Your task to perform on an android device: toggle data saver in the chrome app Image 0: 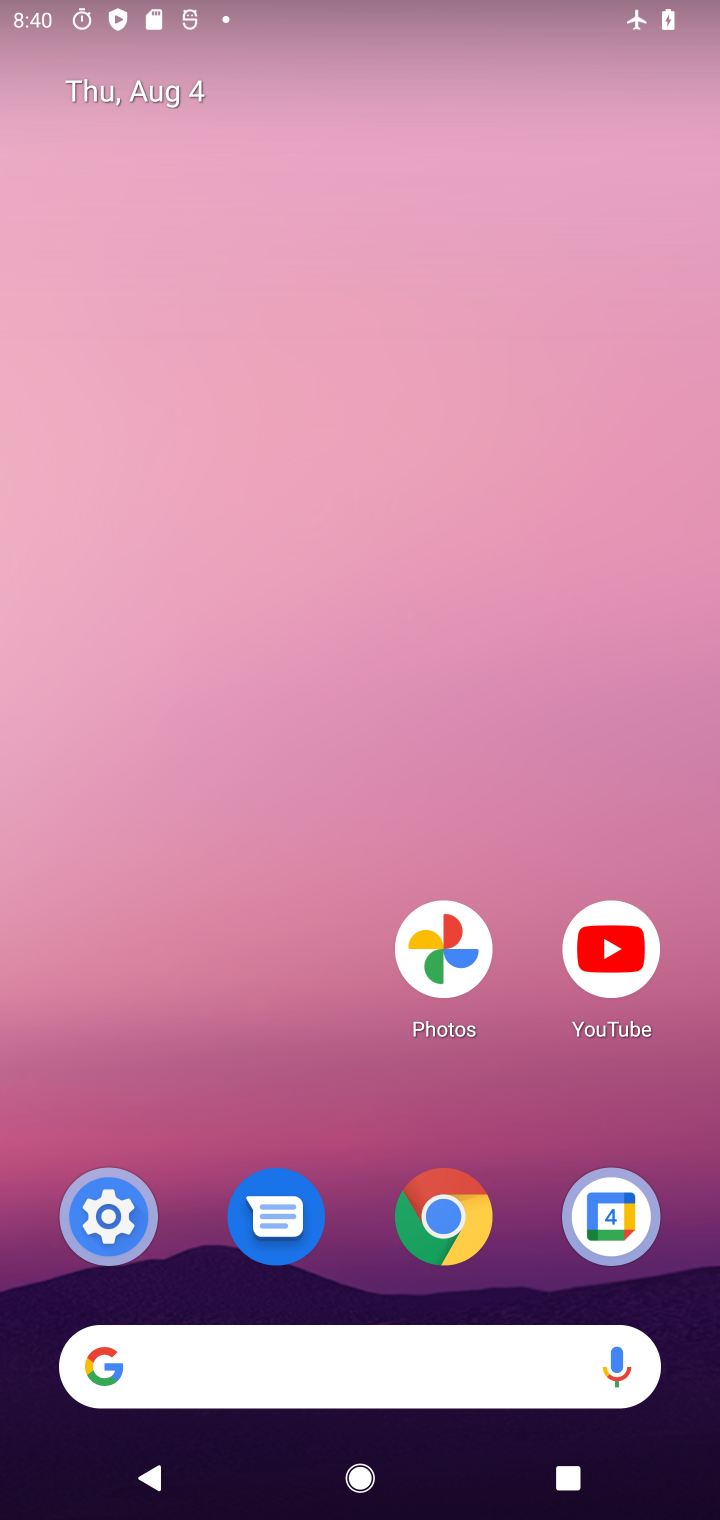
Step 0: click (451, 1208)
Your task to perform on an android device: toggle data saver in the chrome app Image 1: 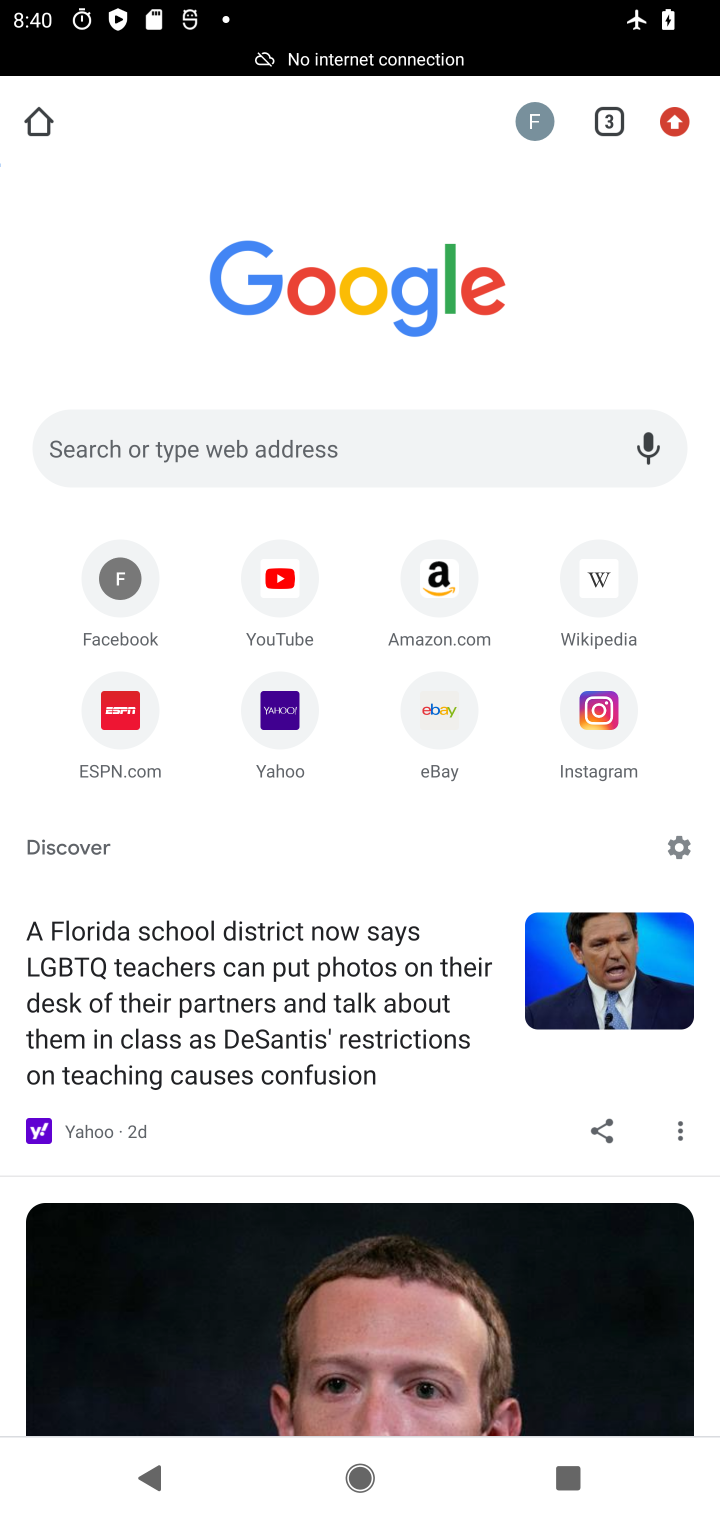
Step 1: click (674, 122)
Your task to perform on an android device: toggle data saver in the chrome app Image 2: 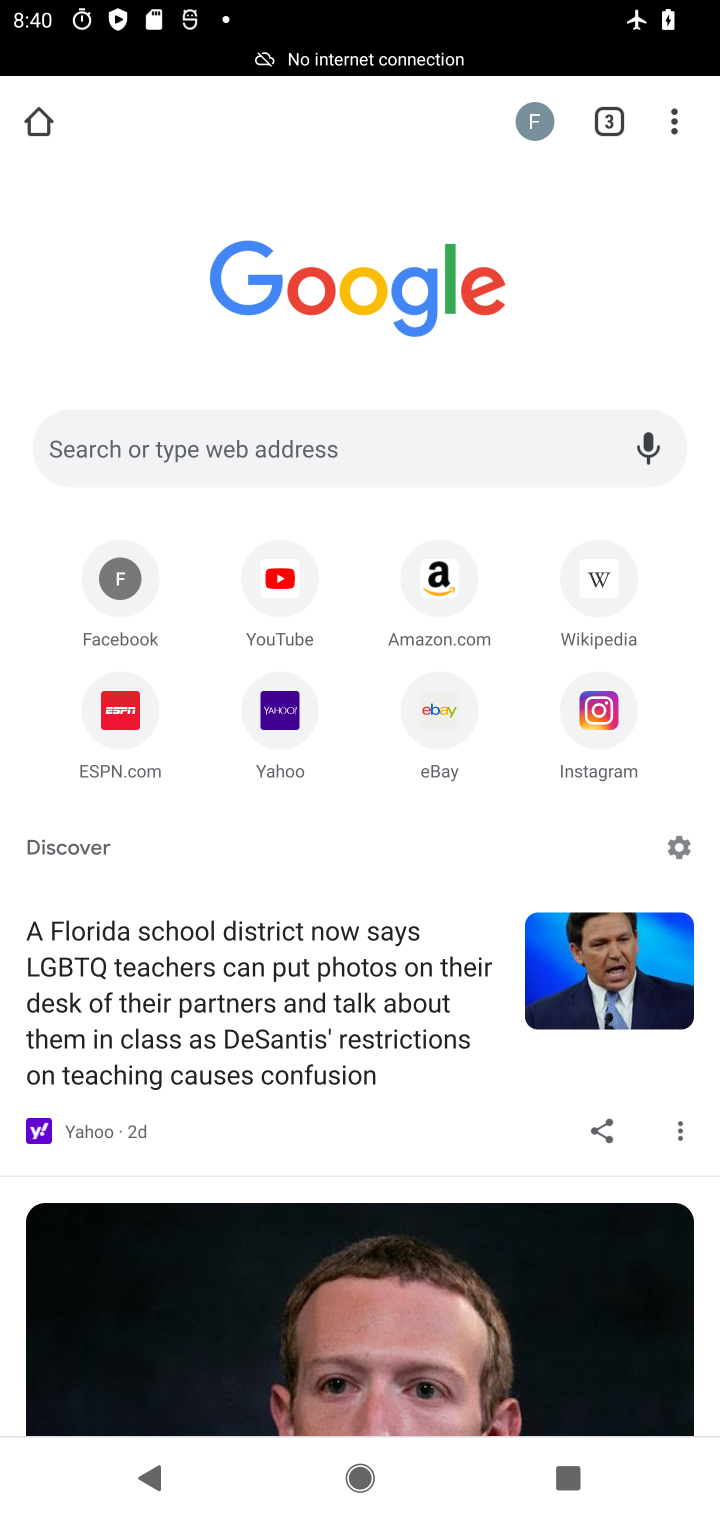
Step 2: drag from (678, 127) to (465, 899)
Your task to perform on an android device: toggle data saver in the chrome app Image 3: 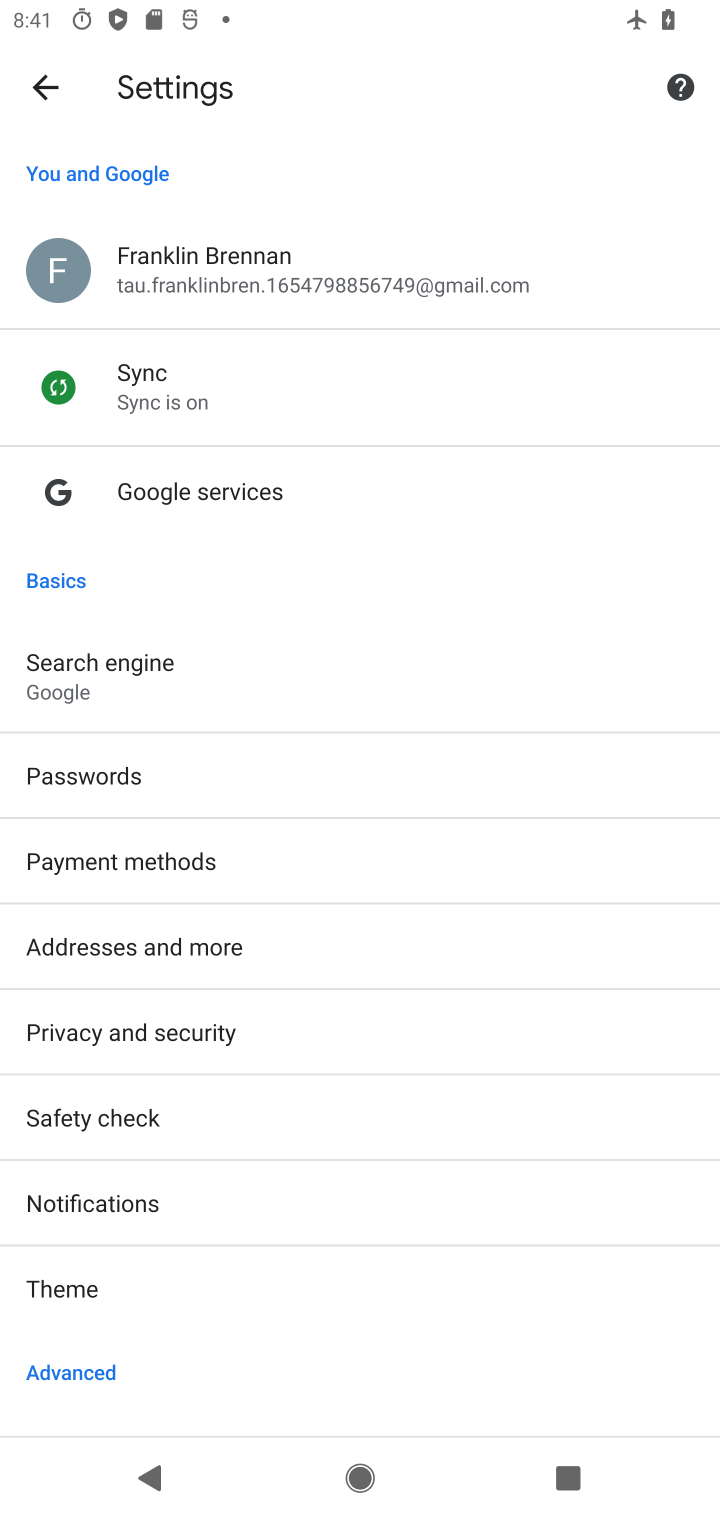
Step 3: drag from (192, 1253) to (199, 762)
Your task to perform on an android device: toggle data saver in the chrome app Image 4: 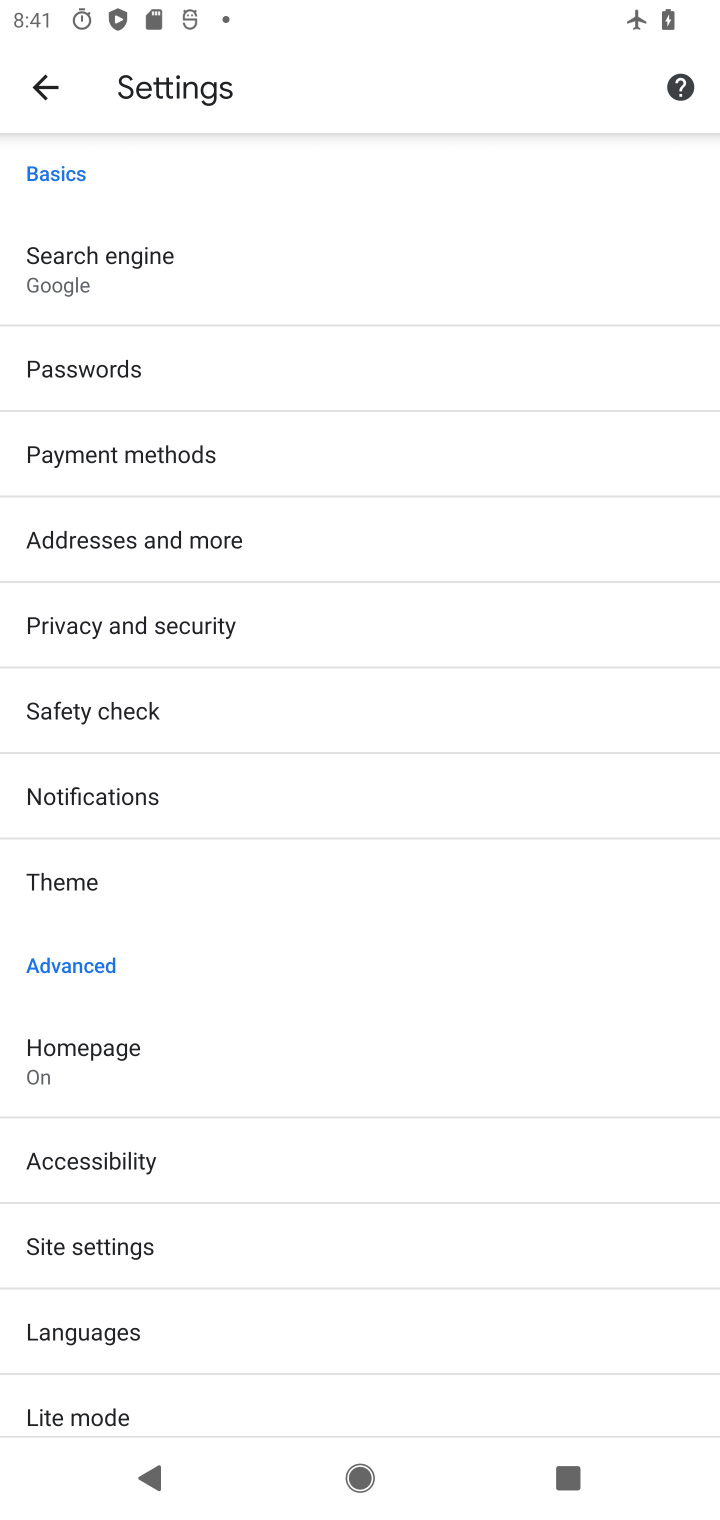
Step 4: click (136, 1397)
Your task to perform on an android device: toggle data saver in the chrome app Image 5: 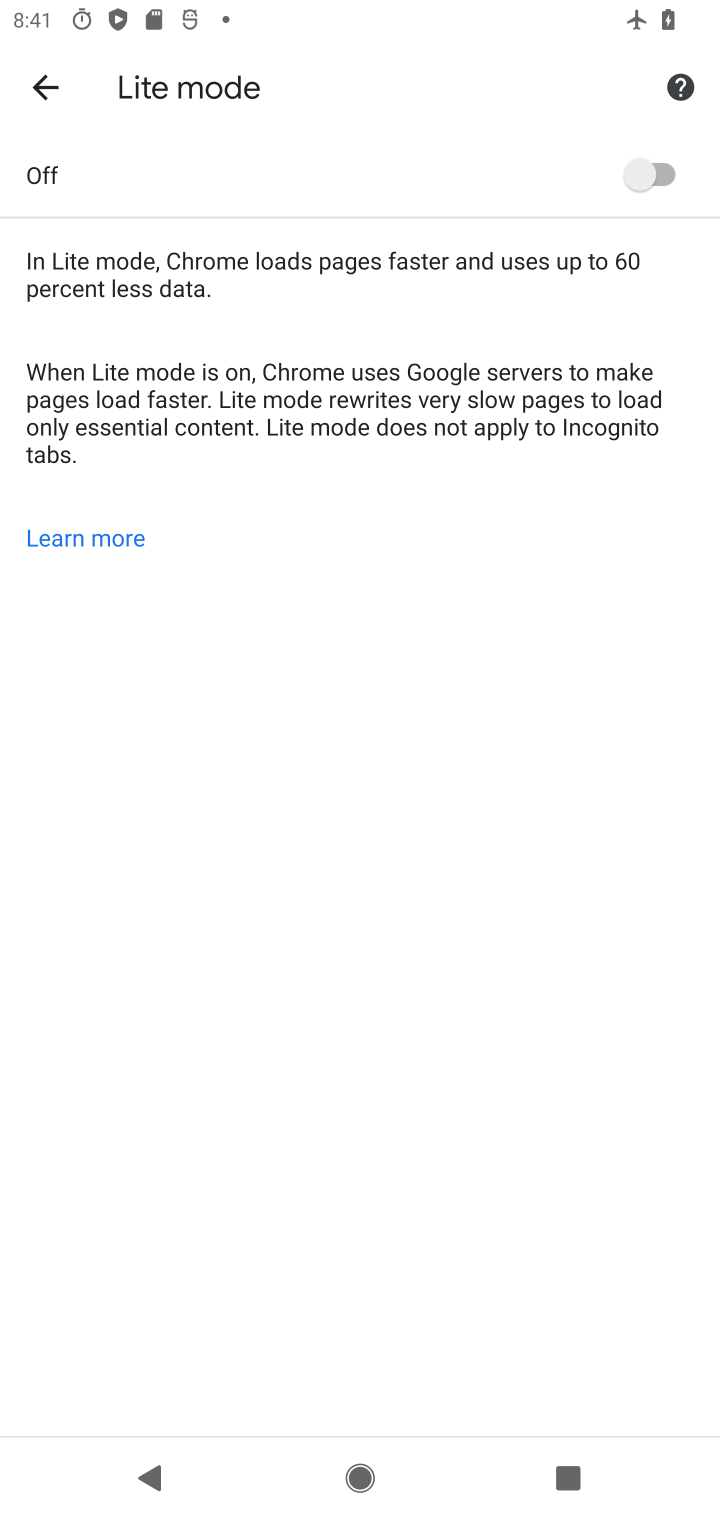
Step 5: click (218, 1332)
Your task to perform on an android device: toggle data saver in the chrome app Image 6: 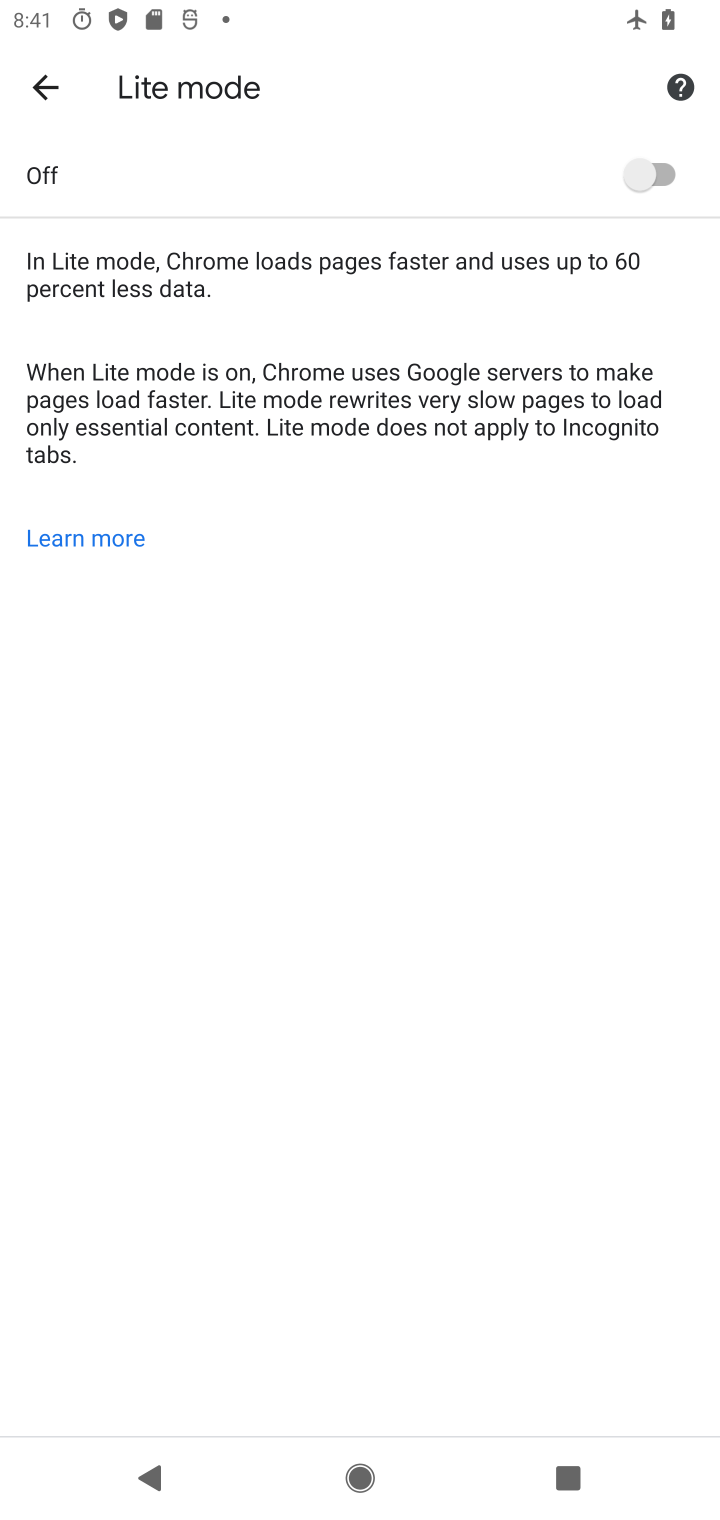
Step 6: click (656, 164)
Your task to perform on an android device: toggle data saver in the chrome app Image 7: 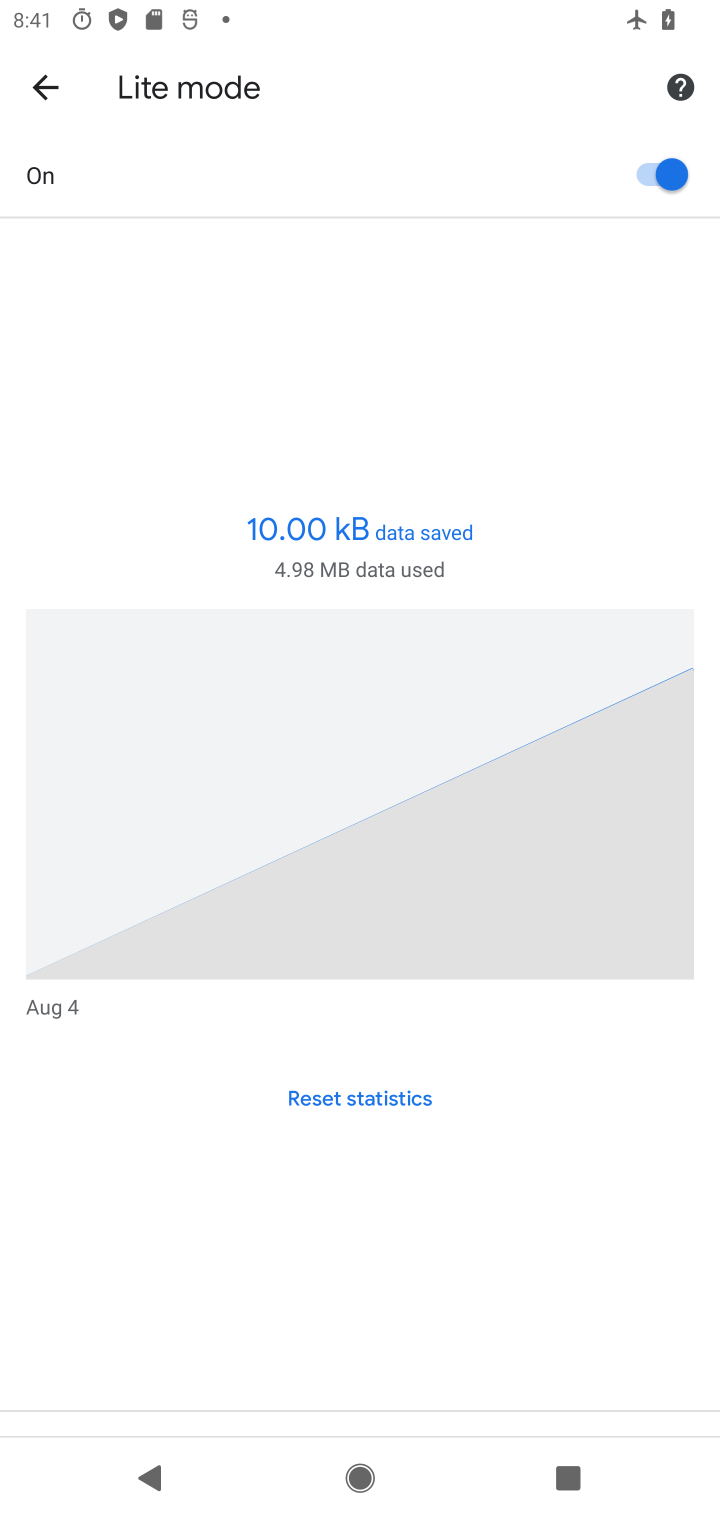
Step 7: task complete